Your task to perform on an android device: Check the news Image 0: 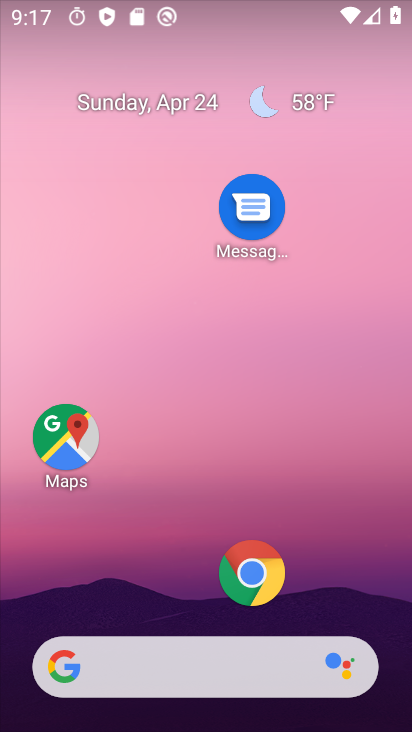
Step 0: click (165, 643)
Your task to perform on an android device: Check the news Image 1: 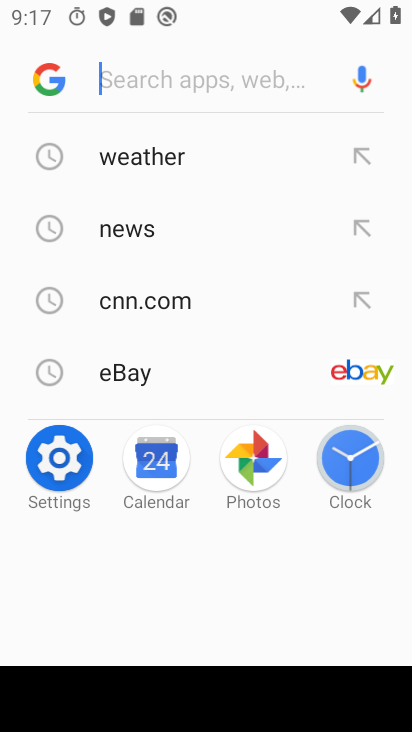
Step 1: click (129, 232)
Your task to perform on an android device: Check the news Image 2: 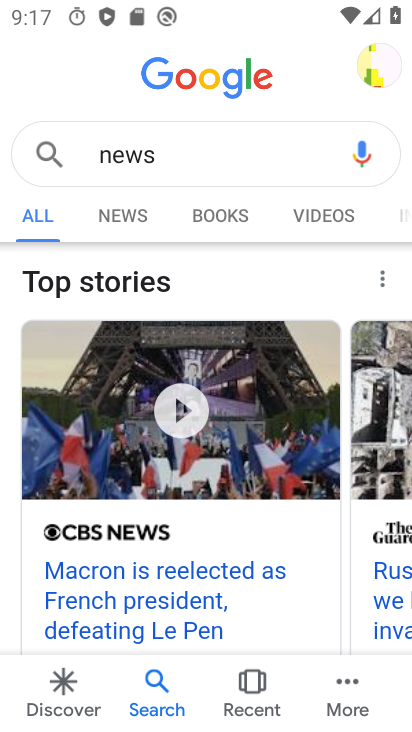
Step 2: task complete